Your task to perform on an android device: turn on the 24-hour format for clock Image 0: 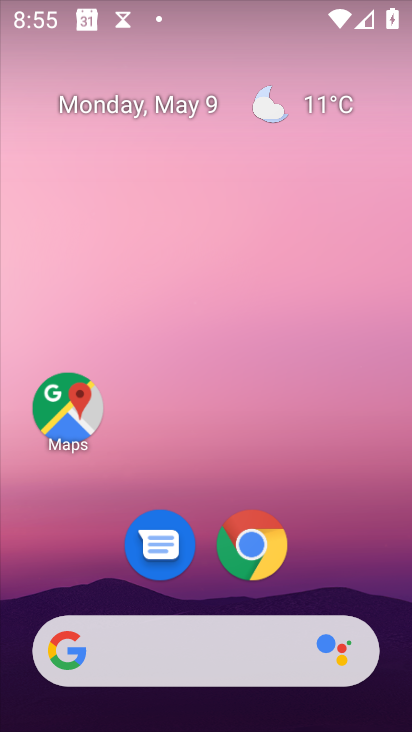
Step 0: drag from (221, 723) to (221, 162)
Your task to perform on an android device: turn on the 24-hour format for clock Image 1: 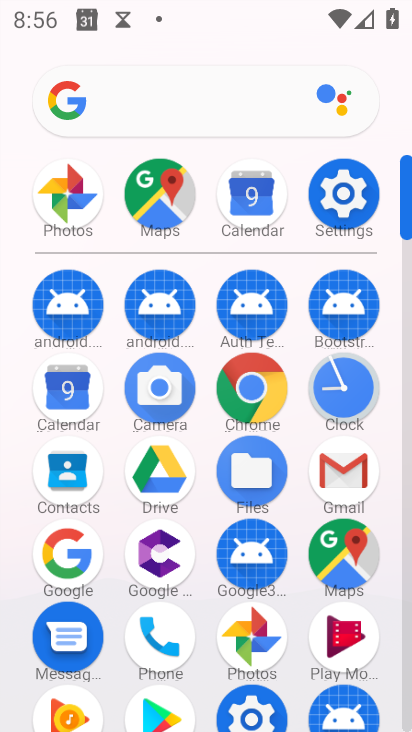
Step 1: click (338, 378)
Your task to perform on an android device: turn on the 24-hour format for clock Image 2: 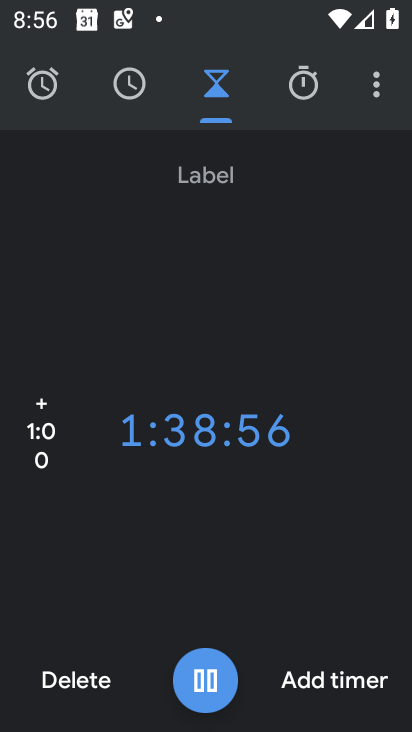
Step 2: click (378, 94)
Your task to perform on an android device: turn on the 24-hour format for clock Image 3: 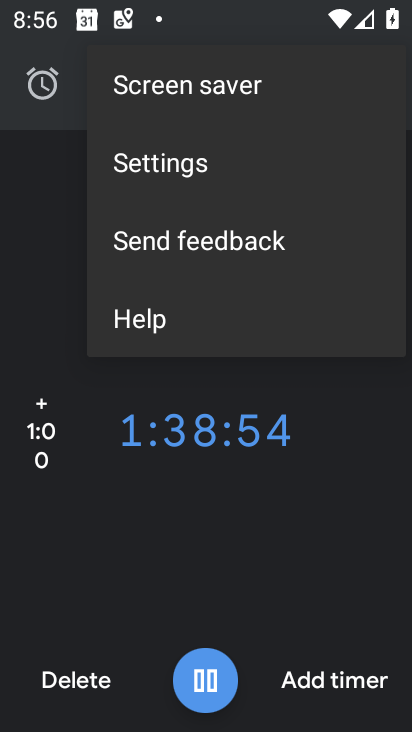
Step 3: click (171, 163)
Your task to perform on an android device: turn on the 24-hour format for clock Image 4: 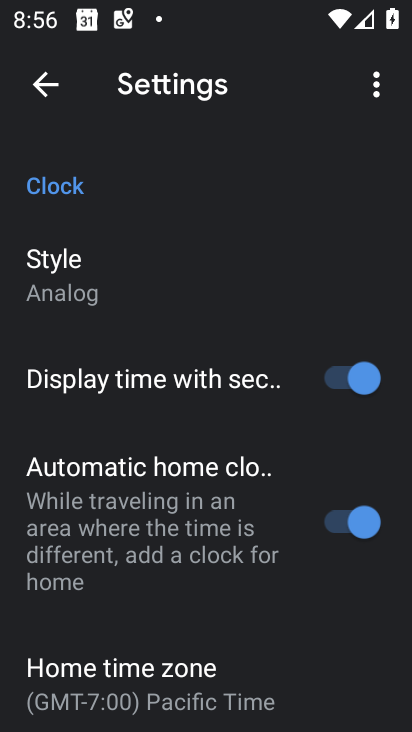
Step 4: drag from (141, 591) to (141, 314)
Your task to perform on an android device: turn on the 24-hour format for clock Image 5: 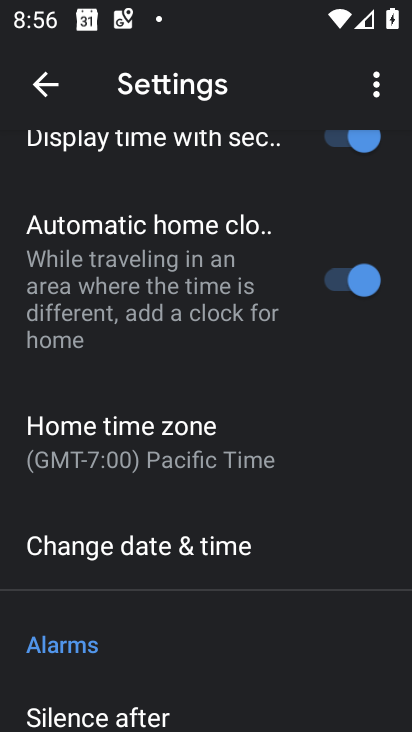
Step 5: click (128, 546)
Your task to perform on an android device: turn on the 24-hour format for clock Image 6: 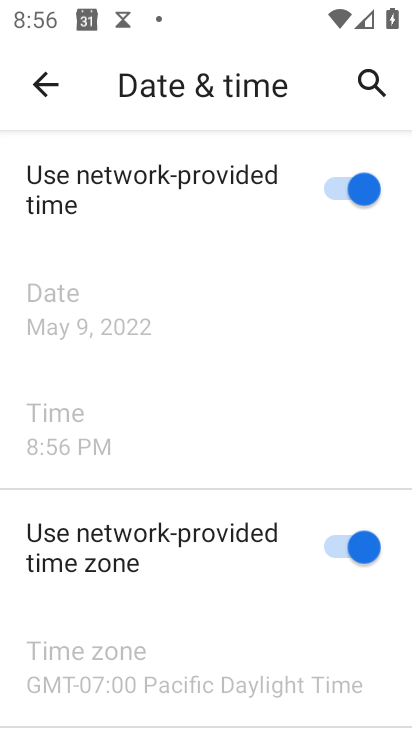
Step 6: drag from (150, 644) to (150, 351)
Your task to perform on an android device: turn on the 24-hour format for clock Image 7: 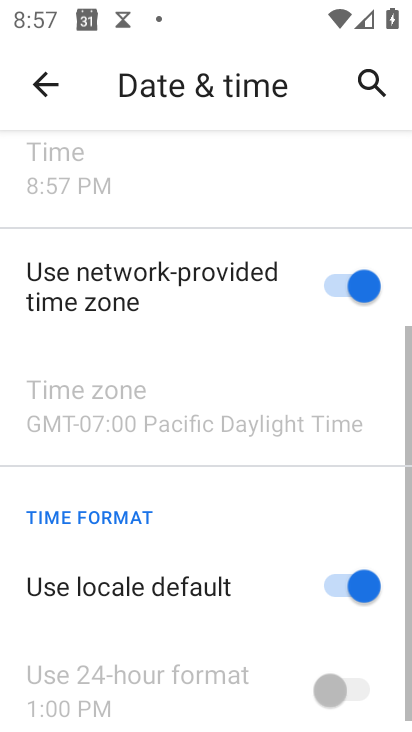
Step 7: drag from (205, 641) to (187, 417)
Your task to perform on an android device: turn on the 24-hour format for clock Image 8: 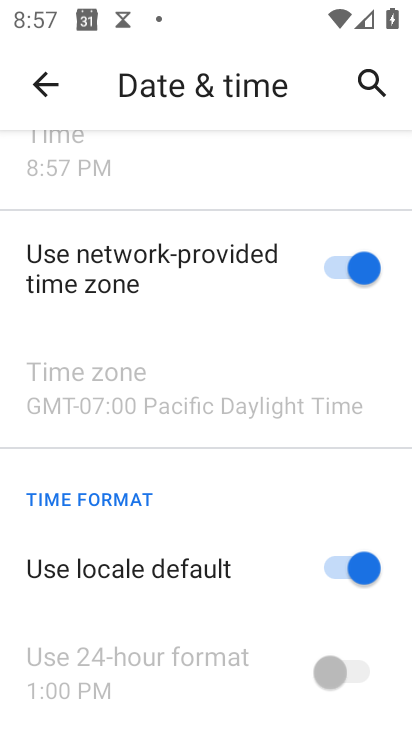
Step 8: click (327, 563)
Your task to perform on an android device: turn on the 24-hour format for clock Image 9: 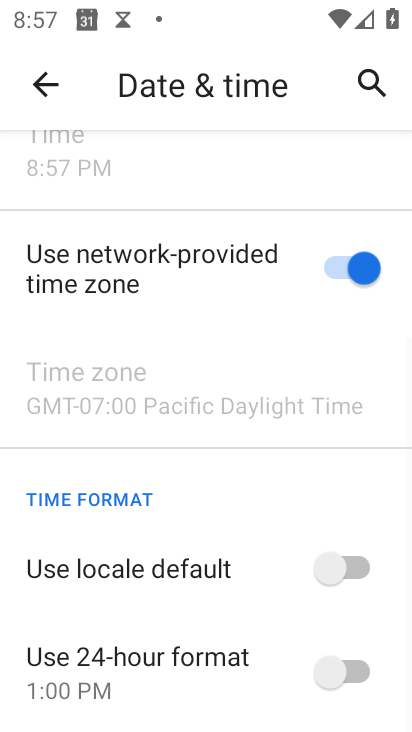
Step 9: click (354, 673)
Your task to perform on an android device: turn on the 24-hour format for clock Image 10: 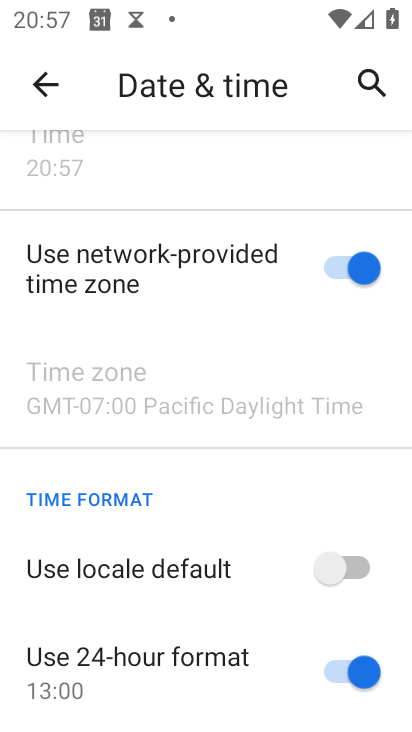
Step 10: task complete